Your task to perform on an android device: turn off improve location accuracy Image 0: 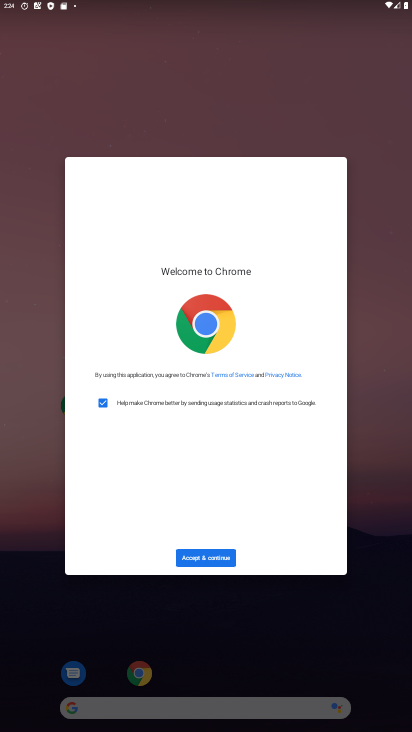
Step 0: press home button
Your task to perform on an android device: turn off improve location accuracy Image 1: 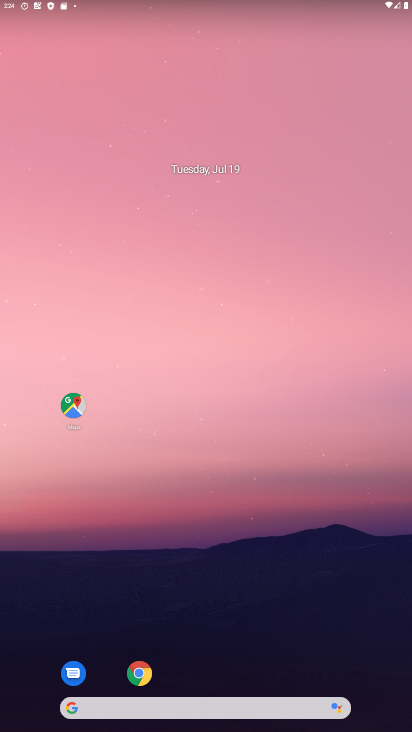
Step 1: drag from (199, 603) to (246, 0)
Your task to perform on an android device: turn off improve location accuracy Image 2: 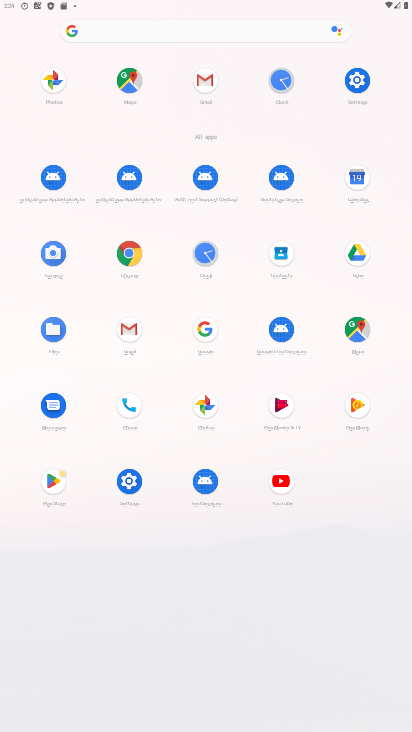
Step 2: click (126, 485)
Your task to perform on an android device: turn off improve location accuracy Image 3: 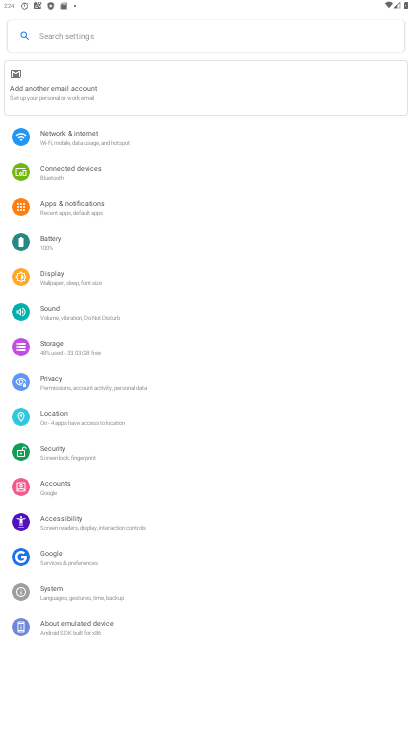
Step 3: click (97, 421)
Your task to perform on an android device: turn off improve location accuracy Image 4: 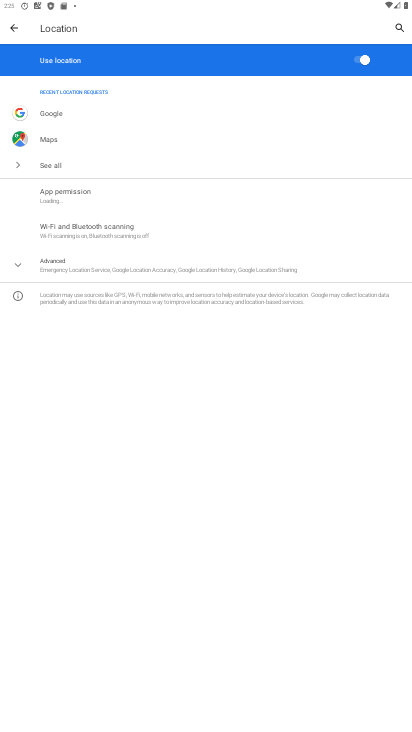
Step 4: click (74, 269)
Your task to perform on an android device: turn off improve location accuracy Image 5: 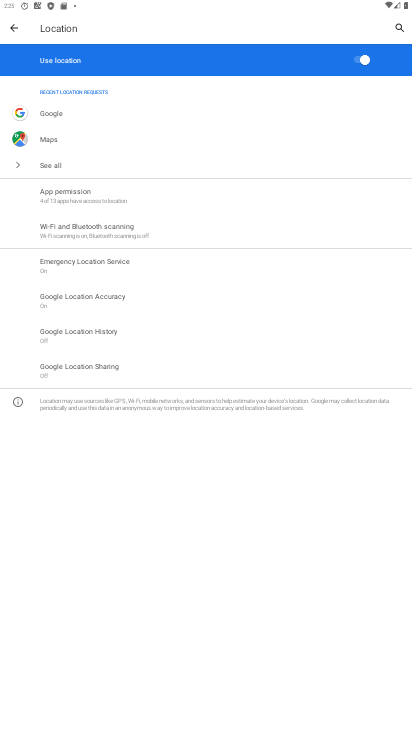
Step 5: click (105, 299)
Your task to perform on an android device: turn off improve location accuracy Image 6: 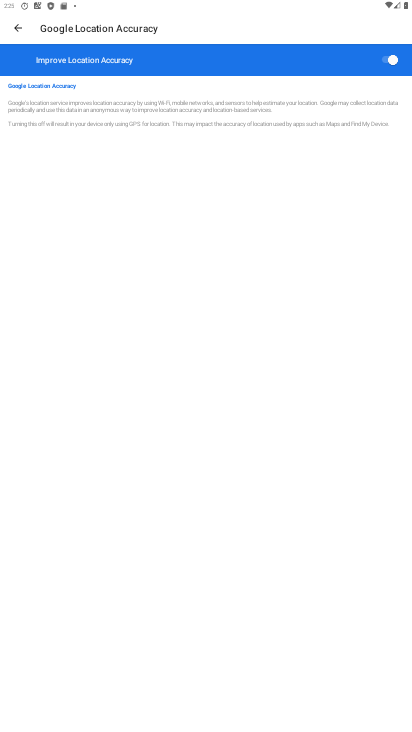
Step 6: click (378, 66)
Your task to perform on an android device: turn off improve location accuracy Image 7: 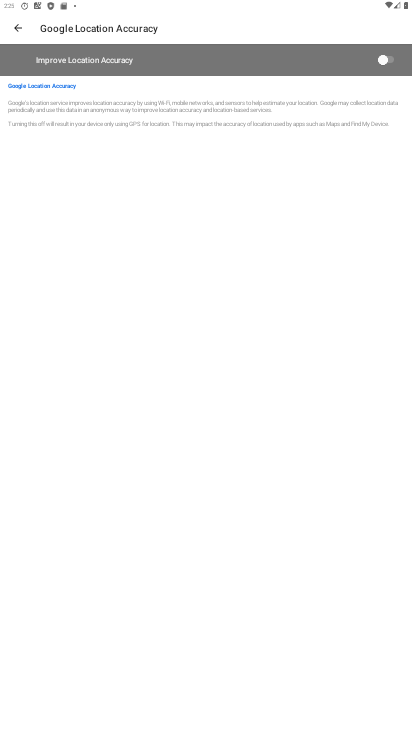
Step 7: task complete